Your task to perform on an android device: Is it going to rain tomorrow? Image 0: 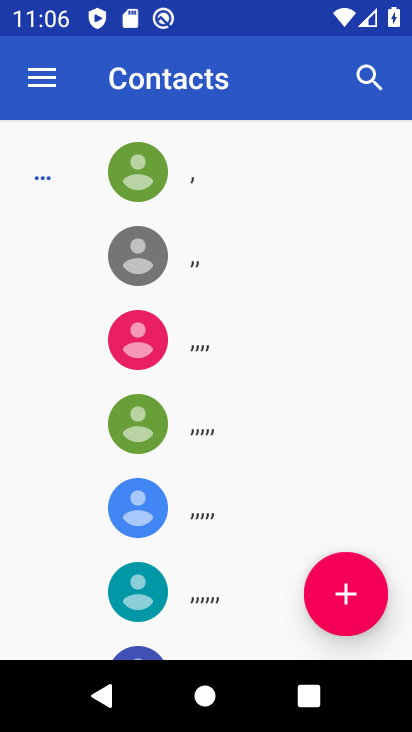
Step 0: press home button
Your task to perform on an android device: Is it going to rain tomorrow? Image 1: 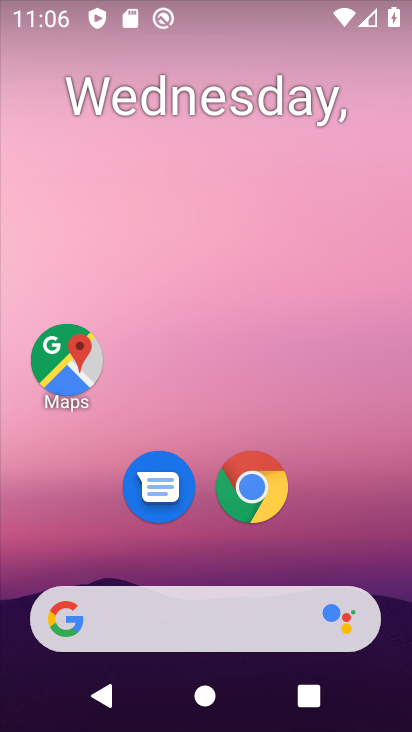
Step 1: click (113, 614)
Your task to perform on an android device: Is it going to rain tomorrow? Image 2: 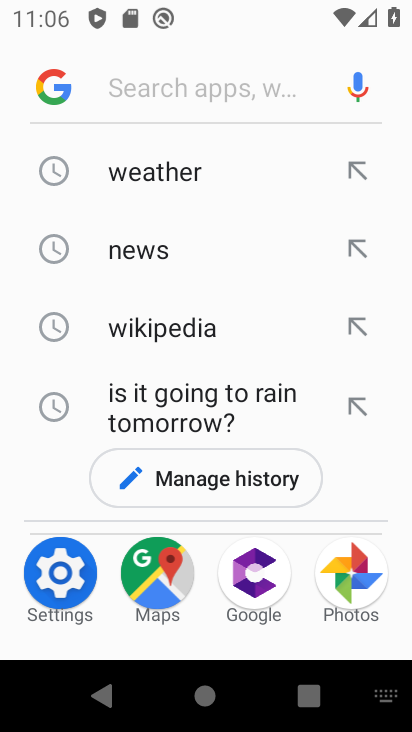
Step 2: click (157, 176)
Your task to perform on an android device: Is it going to rain tomorrow? Image 3: 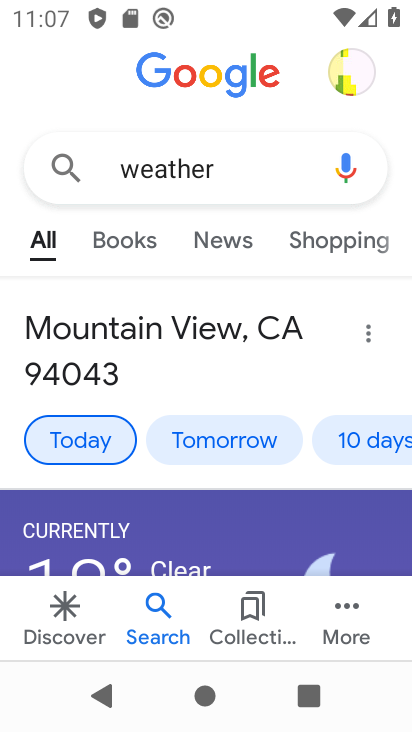
Step 3: click (213, 448)
Your task to perform on an android device: Is it going to rain tomorrow? Image 4: 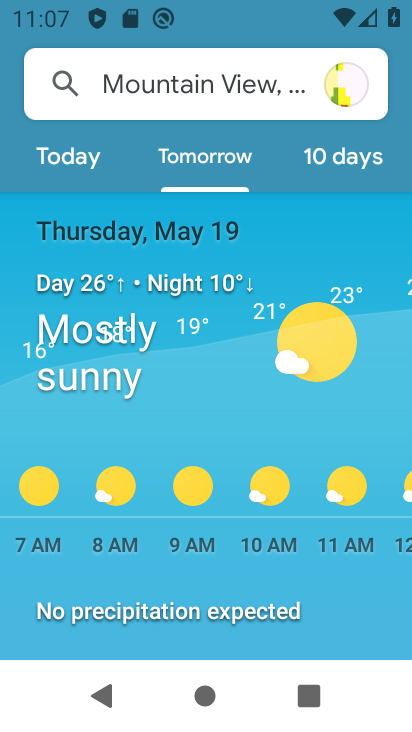
Step 4: task complete